Your task to perform on an android device: Open the calendar and show me this week's events? Image 0: 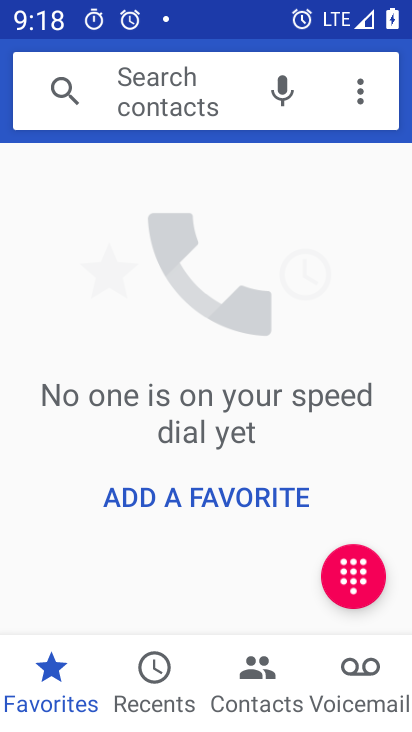
Step 0: press home button
Your task to perform on an android device: Open the calendar and show me this week's events? Image 1: 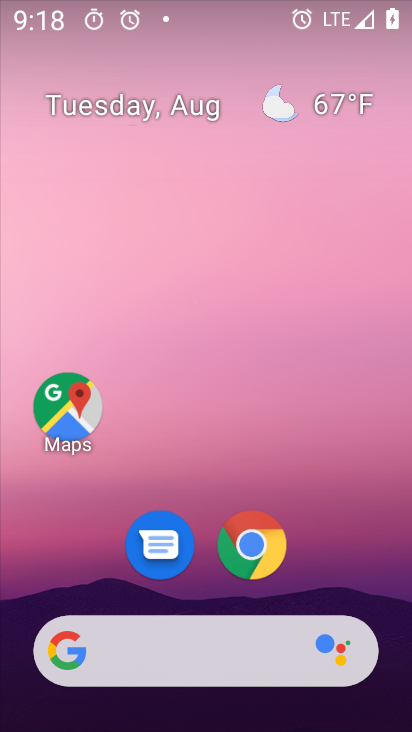
Step 1: drag from (233, 657) to (314, 0)
Your task to perform on an android device: Open the calendar and show me this week's events? Image 2: 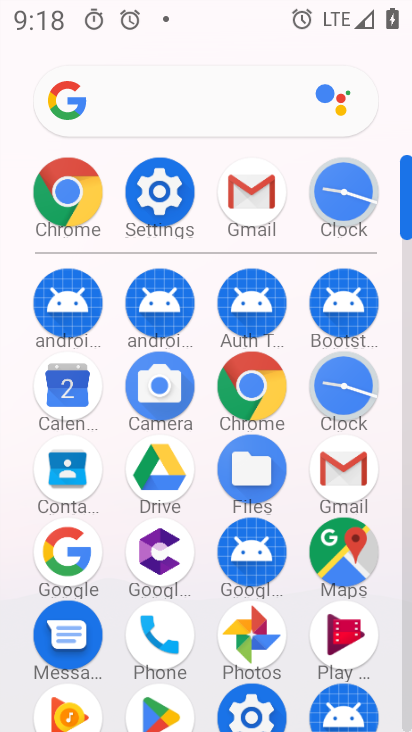
Step 2: click (80, 404)
Your task to perform on an android device: Open the calendar and show me this week's events? Image 3: 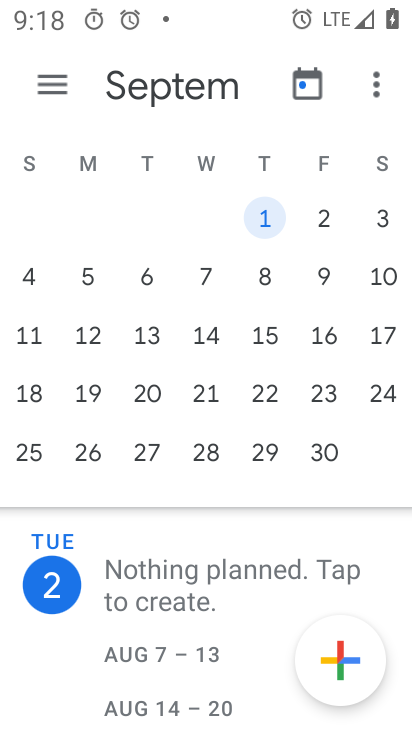
Step 3: drag from (96, 392) to (411, 389)
Your task to perform on an android device: Open the calendar and show me this week's events? Image 4: 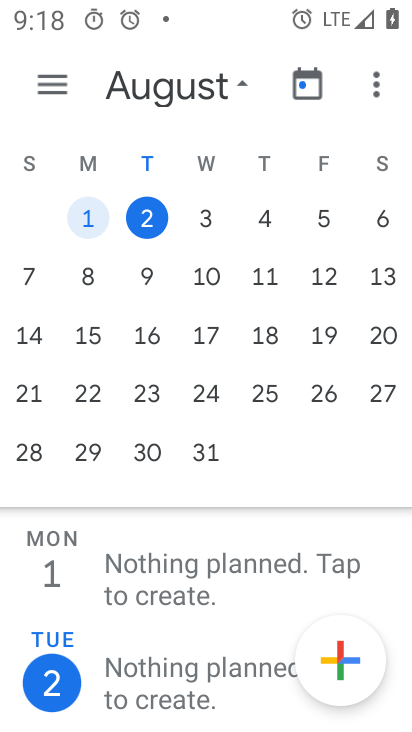
Step 4: click (154, 225)
Your task to perform on an android device: Open the calendar and show me this week's events? Image 5: 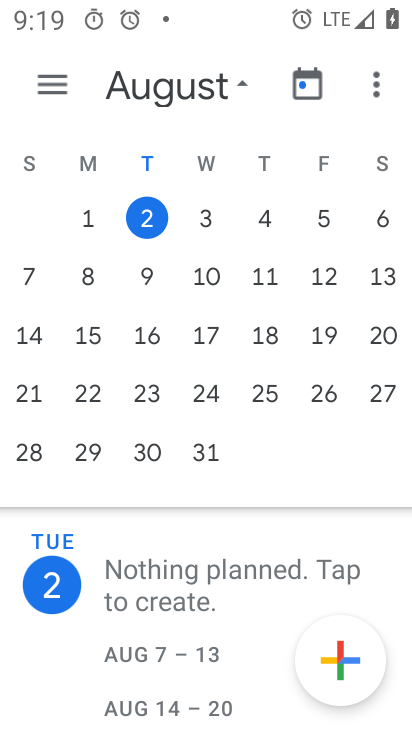
Step 5: task complete